Your task to perform on an android device: add a contact in the contacts app Image 0: 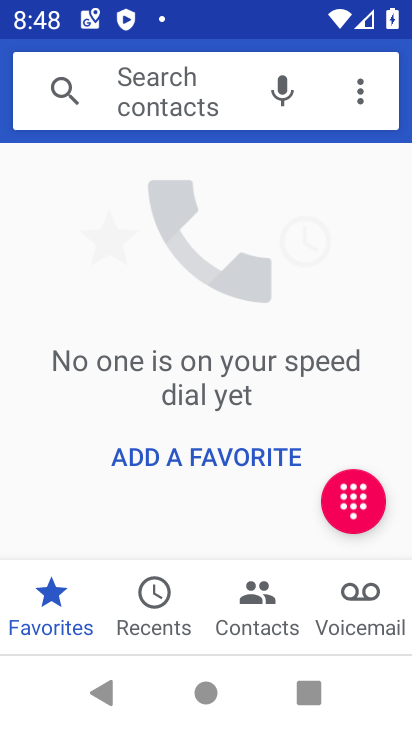
Step 0: click (261, 608)
Your task to perform on an android device: add a contact in the contacts app Image 1: 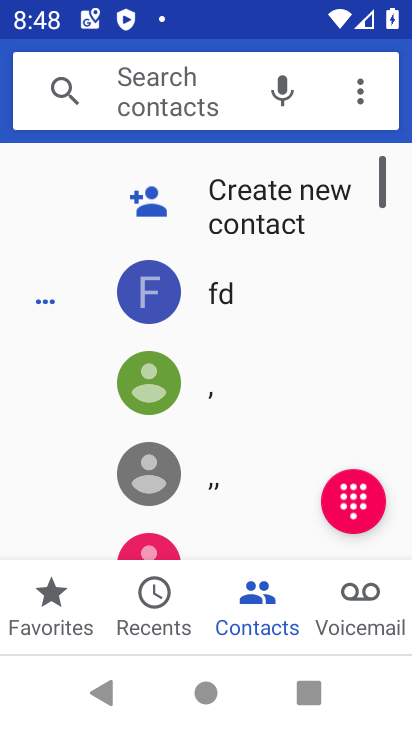
Step 1: task complete